Your task to perform on an android device: Go to Amazon Image 0: 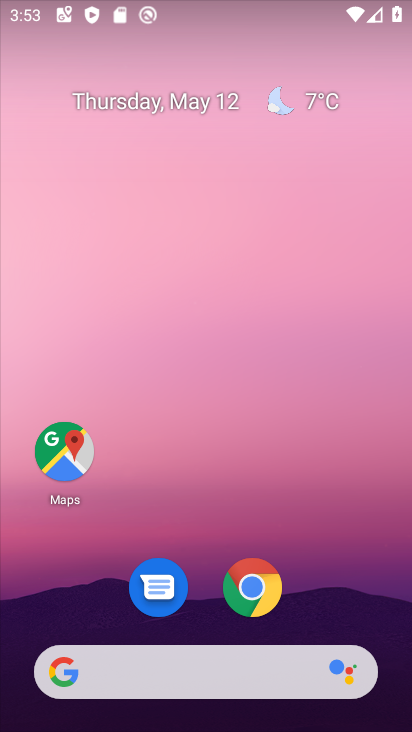
Step 0: click (257, 596)
Your task to perform on an android device: Go to Amazon Image 1: 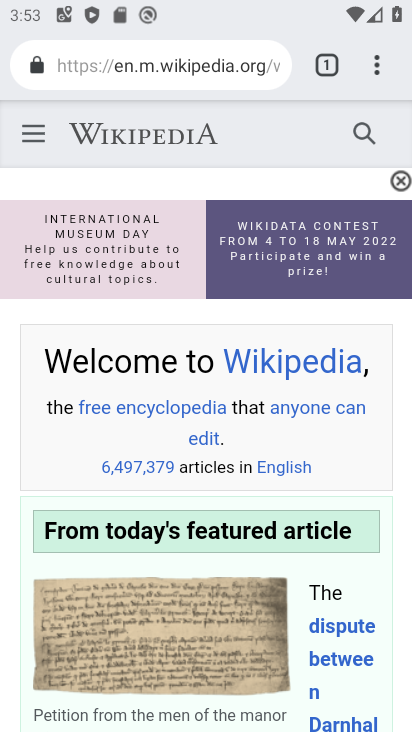
Step 1: click (113, 60)
Your task to perform on an android device: Go to Amazon Image 2: 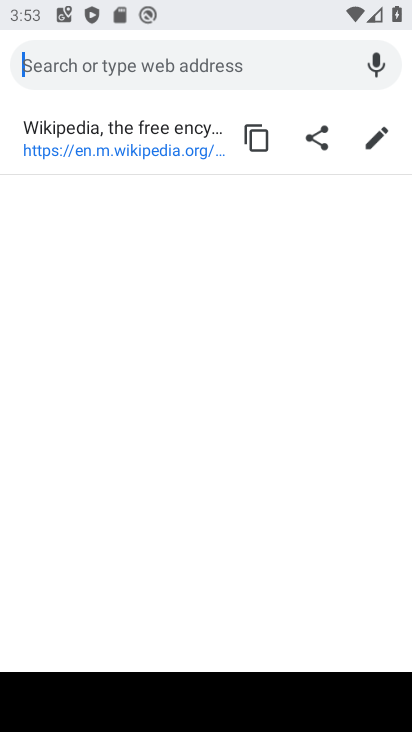
Step 2: type "Amazon"
Your task to perform on an android device: Go to Amazon Image 3: 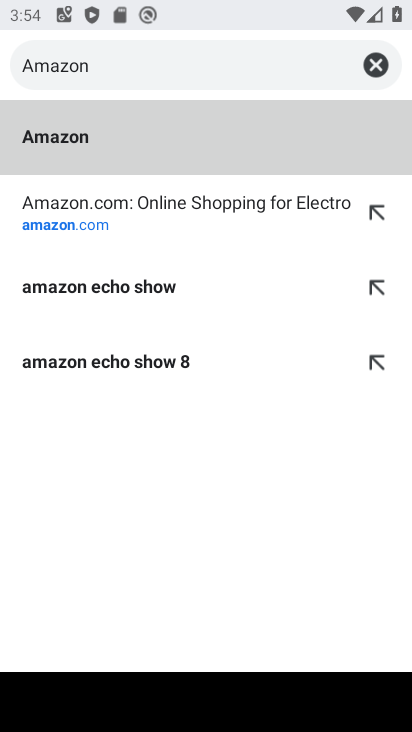
Step 3: click (59, 125)
Your task to perform on an android device: Go to Amazon Image 4: 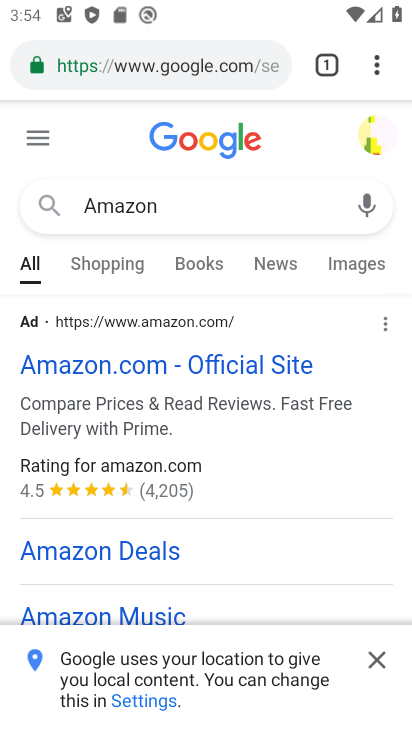
Step 4: click (73, 365)
Your task to perform on an android device: Go to Amazon Image 5: 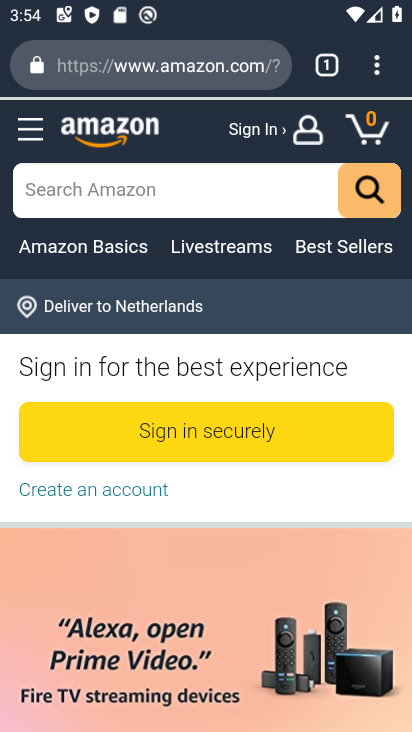
Step 5: task complete